Your task to perform on an android device: Open Google Chrome and click the shortcut for Amazon.com Image 0: 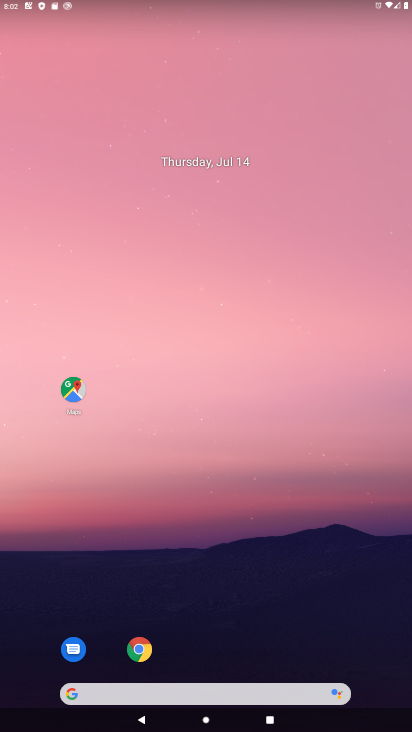
Step 0: click (138, 644)
Your task to perform on an android device: Open Google Chrome and click the shortcut for Amazon.com Image 1: 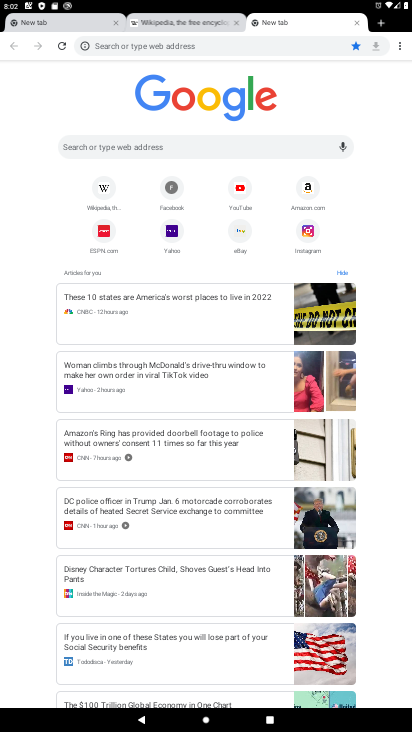
Step 1: click (308, 184)
Your task to perform on an android device: Open Google Chrome and click the shortcut for Amazon.com Image 2: 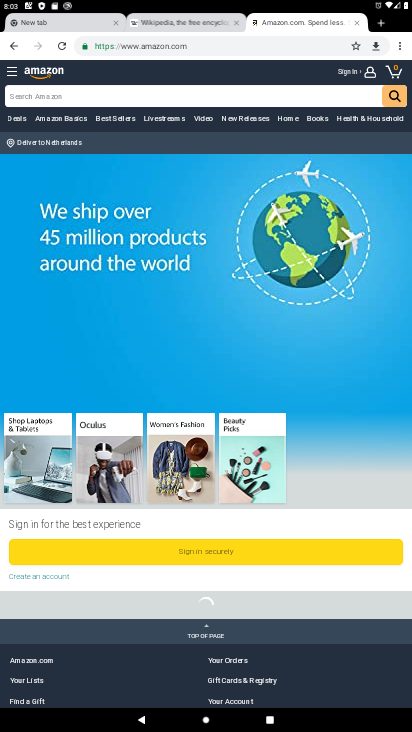
Step 2: task complete